Your task to perform on an android device: check out phone information Image 0: 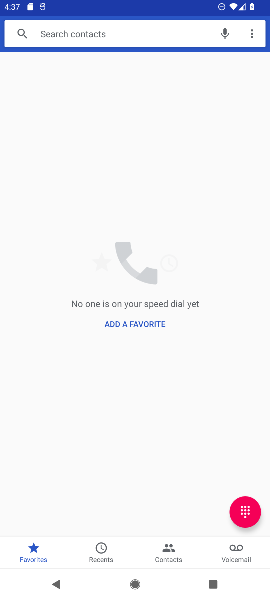
Step 0: press home button
Your task to perform on an android device: check out phone information Image 1: 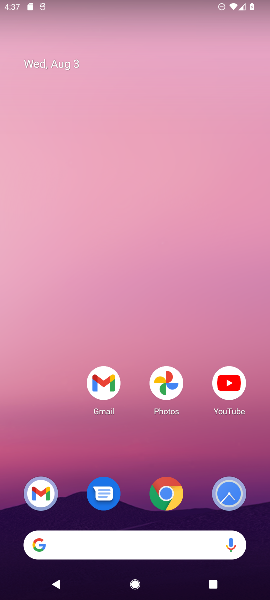
Step 1: drag from (38, 440) to (55, 116)
Your task to perform on an android device: check out phone information Image 2: 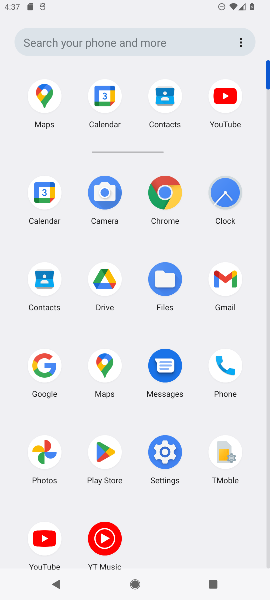
Step 2: click (231, 371)
Your task to perform on an android device: check out phone information Image 3: 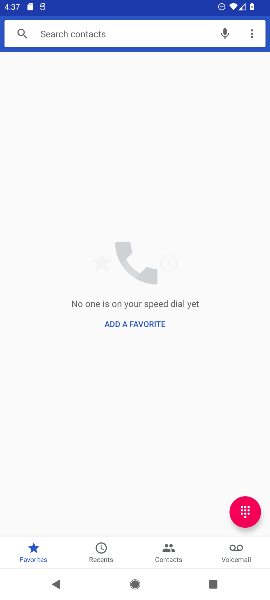
Step 3: task complete